Your task to perform on an android device: Open CNN.com Image 0: 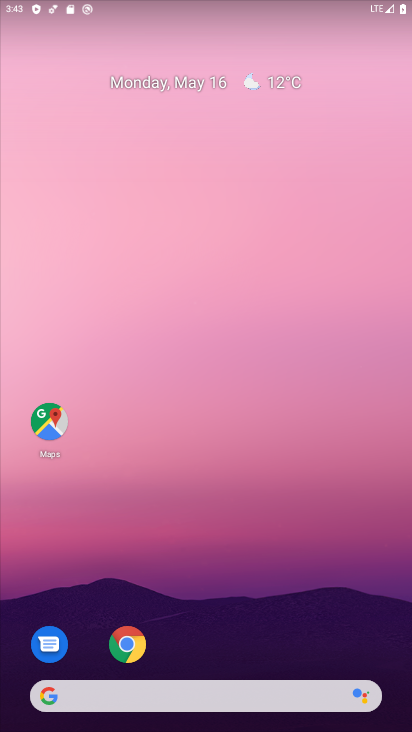
Step 0: click (126, 642)
Your task to perform on an android device: Open CNN.com Image 1: 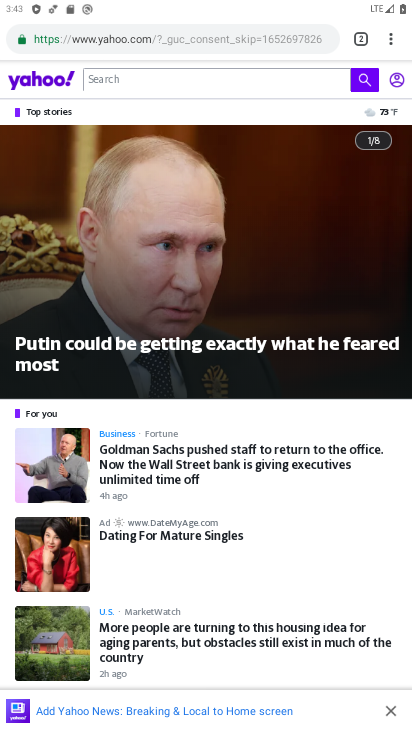
Step 1: click (359, 33)
Your task to perform on an android device: Open CNN.com Image 2: 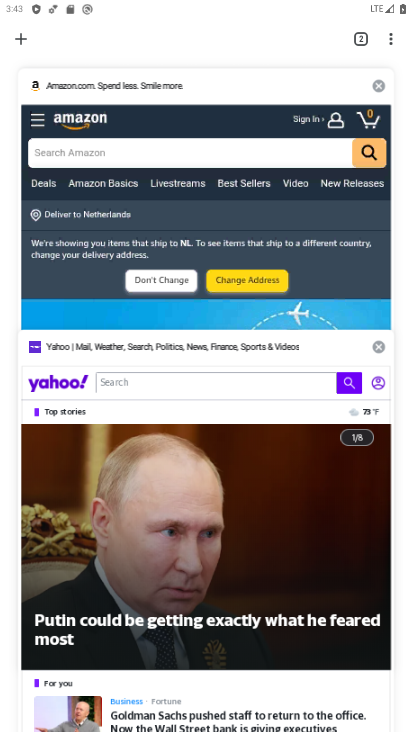
Step 2: click (25, 33)
Your task to perform on an android device: Open CNN.com Image 3: 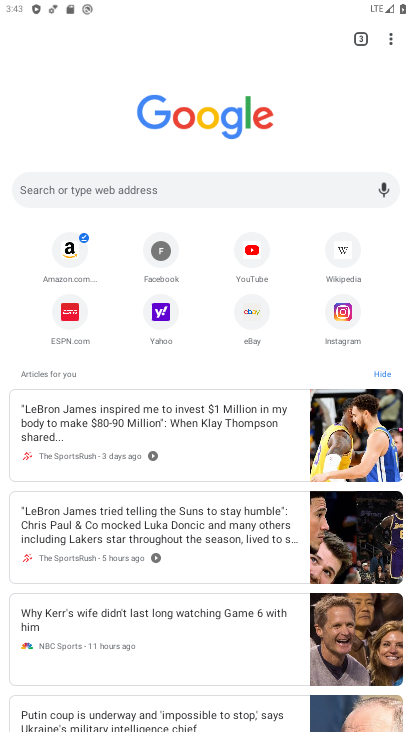
Step 3: click (139, 180)
Your task to perform on an android device: Open CNN.com Image 4: 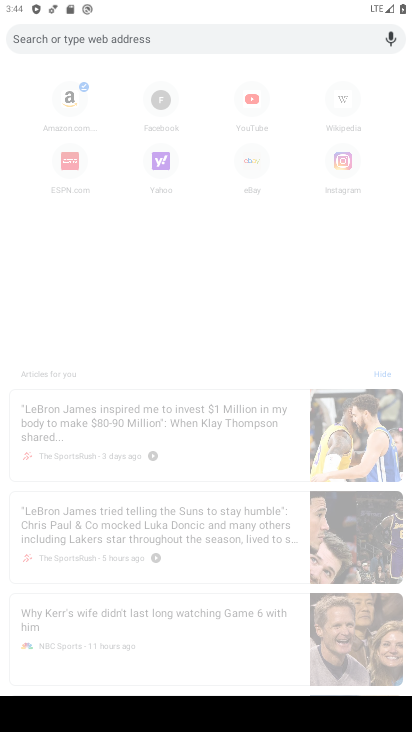
Step 4: type "cnn.com"
Your task to perform on an android device: Open CNN.com Image 5: 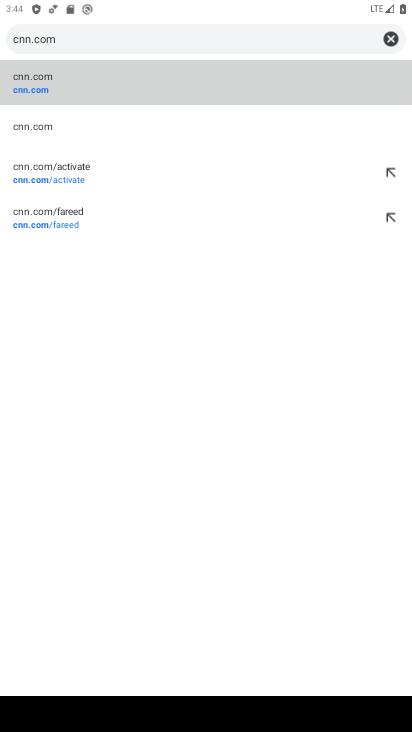
Step 5: click (104, 90)
Your task to perform on an android device: Open CNN.com Image 6: 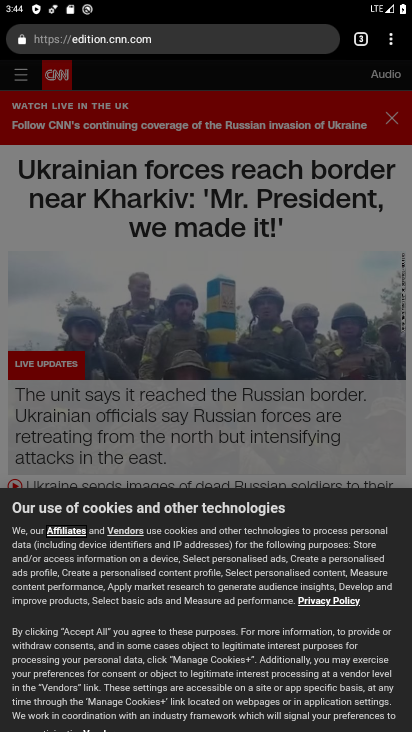
Step 6: task complete